Your task to perform on an android device: change text size in settings app Image 0: 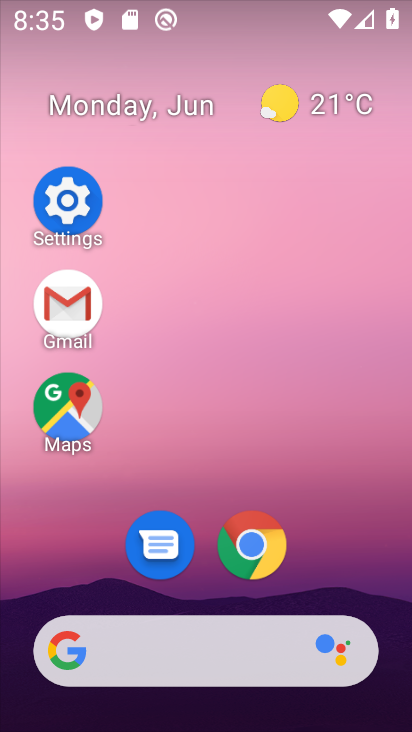
Step 0: click (88, 208)
Your task to perform on an android device: change text size in settings app Image 1: 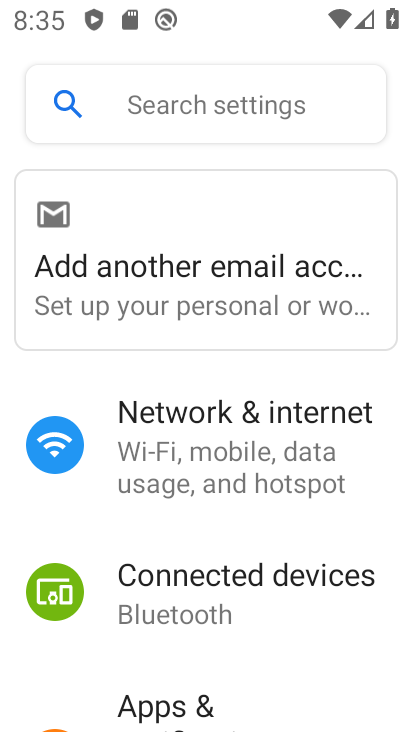
Step 1: drag from (194, 610) to (249, 235)
Your task to perform on an android device: change text size in settings app Image 2: 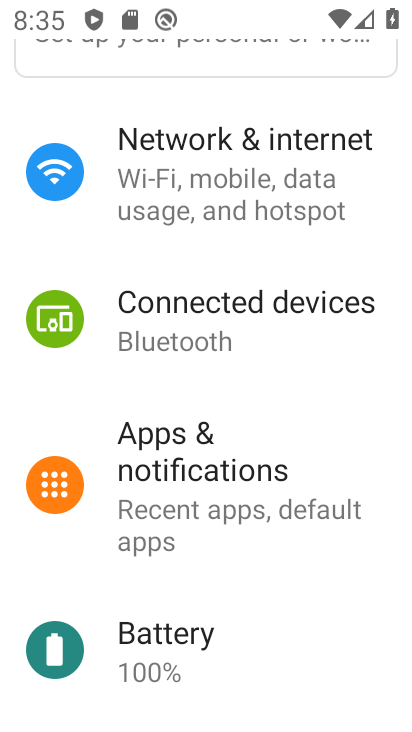
Step 2: drag from (217, 477) to (240, 136)
Your task to perform on an android device: change text size in settings app Image 3: 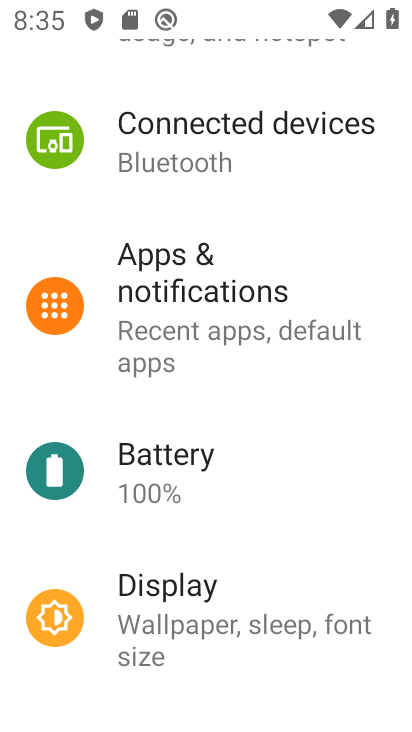
Step 3: click (187, 604)
Your task to perform on an android device: change text size in settings app Image 4: 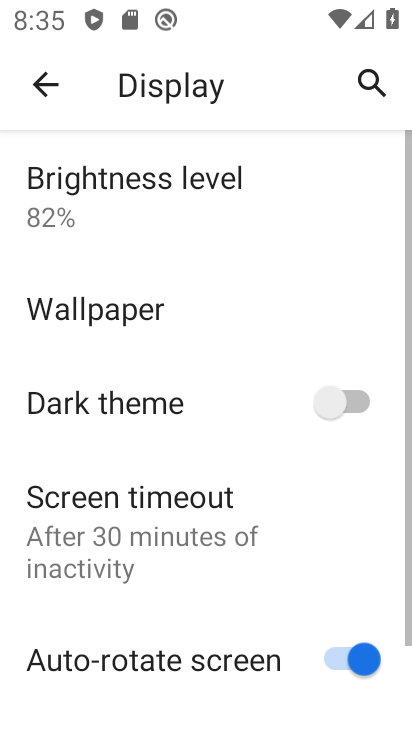
Step 4: drag from (187, 604) to (218, 160)
Your task to perform on an android device: change text size in settings app Image 5: 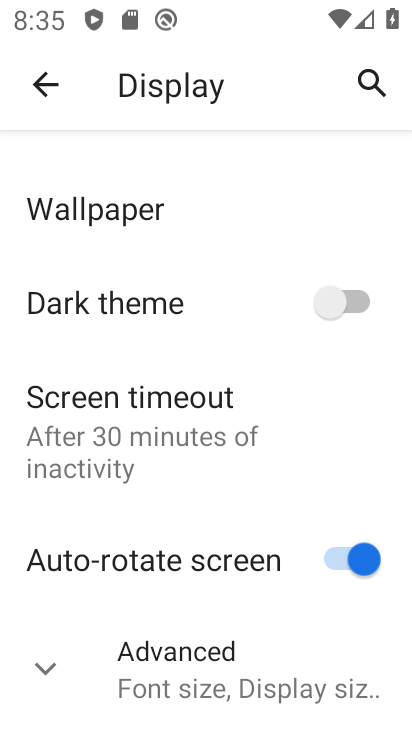
Step 5: click (144, 680)
Your task to perform on an android device: change text size in settings app Image 6: 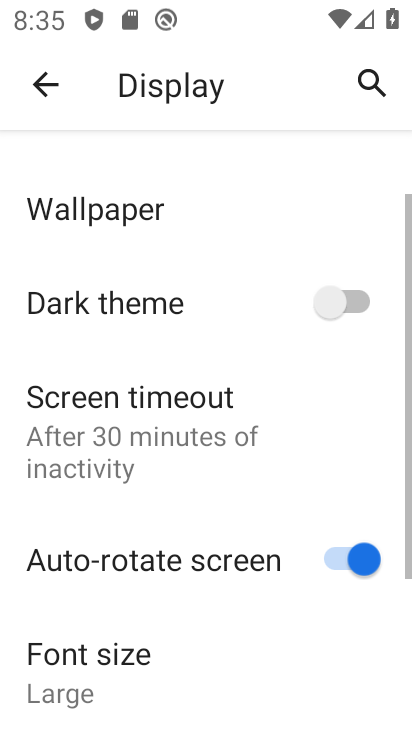
Step 6: drag from (147, 652) to (187, 240)
Your task to perform on an android device: change text size in settings app Image 7: 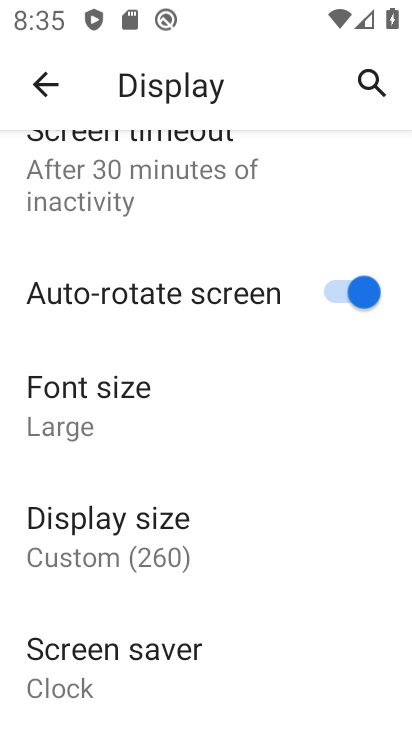
Step 7: click (155, 383)
Your task to perform on an android device: change text size in settings app Image 8: 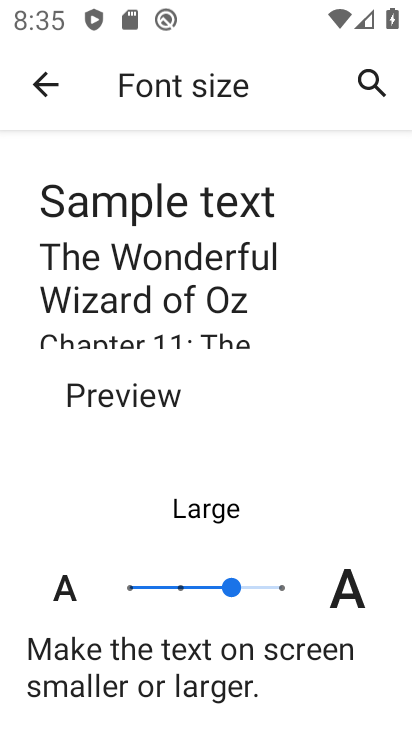
Step 8: click (123, 582)
Your task to perform on an android device: change text size in settings app Image 9: 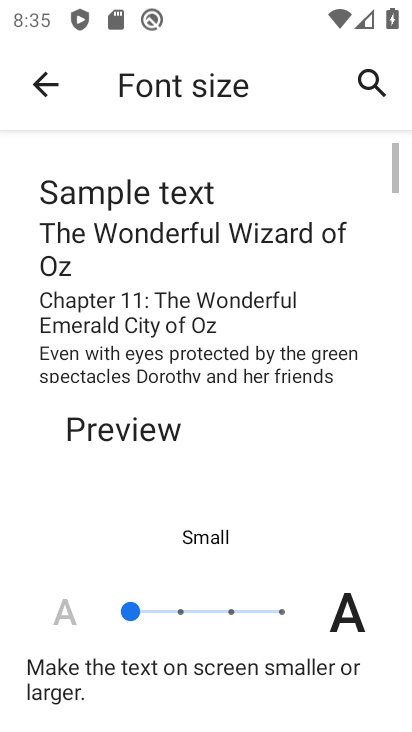
Step 9: task complete